Your task to perform on an android device: change the upload size in google photos Image 0: 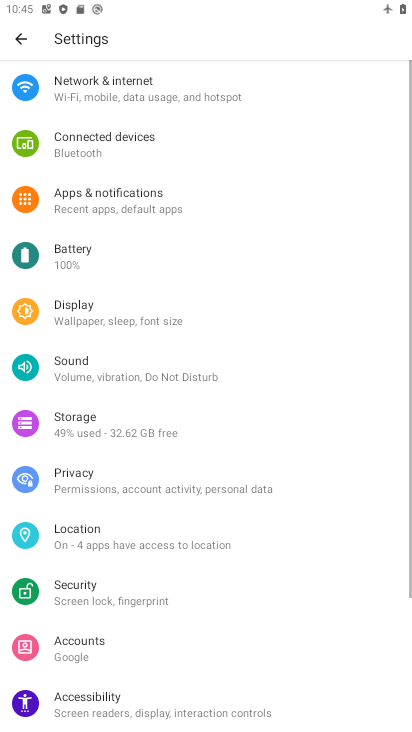
Step 0: click (18, 29)
Your task to perform on an android device: change the upload size in google photos Image 1: 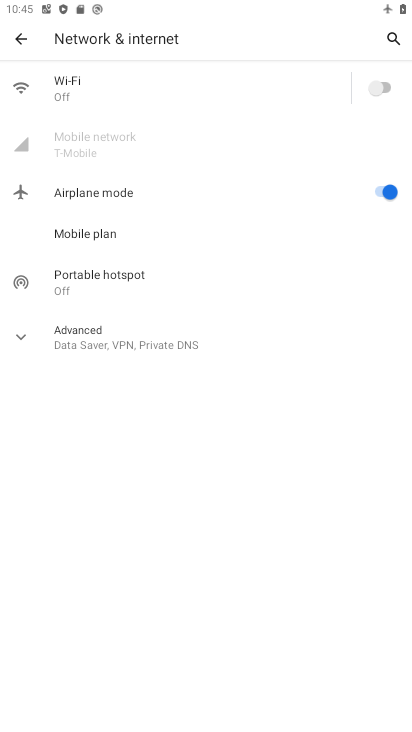
Step 1: click (29, 41)
Your task to perform on an android device: change the upload size in google photos Image 2: 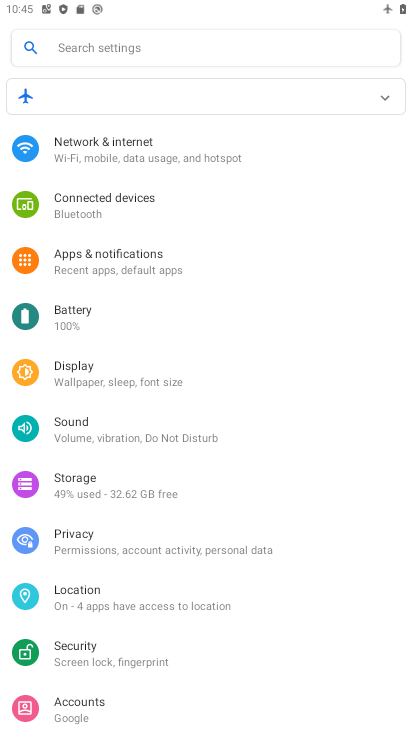
Step 2: press back button
Your task to perform on an android device: change the upload size in google photos Image 3: 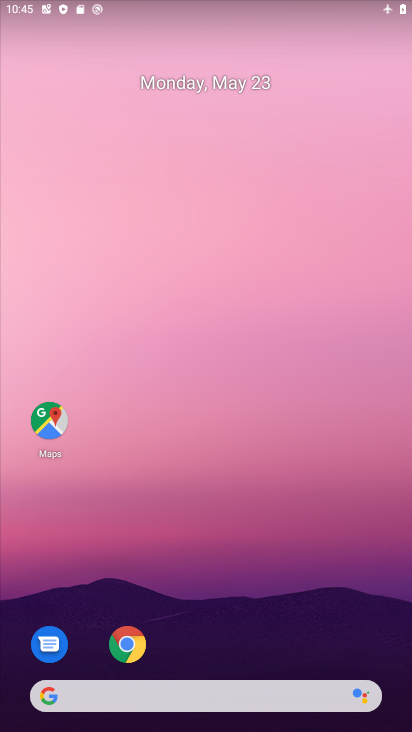
Step 3: drag from (205, 670) to (158, 163)
Your task to perform on an android device: change the upload size in google photos Image 4: 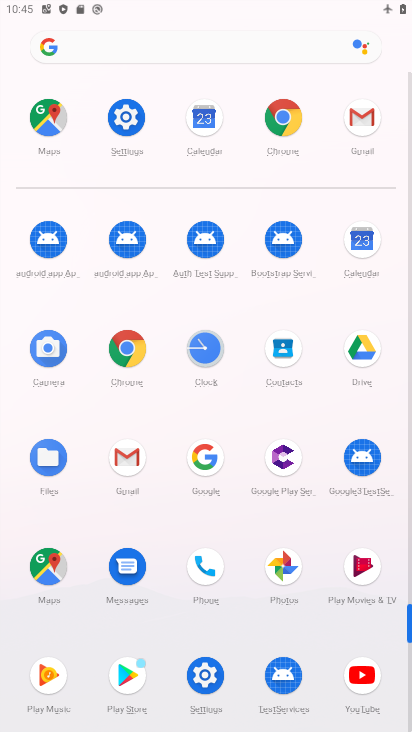
Step 4: click (206, 465)
Your task to perform on an android device: change the upload size in google photos Image 5: 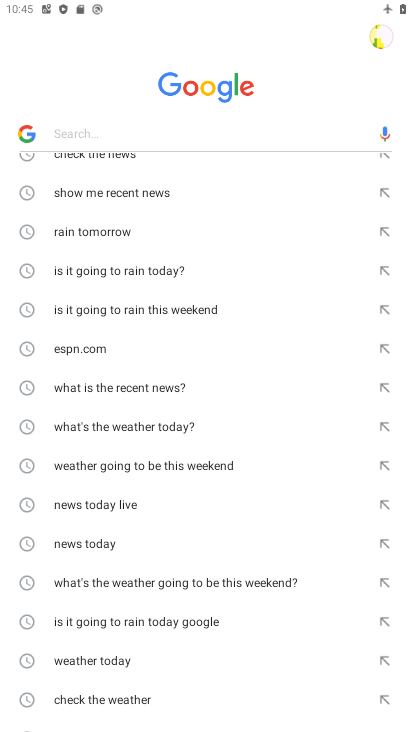
Step 5: press back button
Your task to perform on an android device: change the upload size in google photos Image 6: 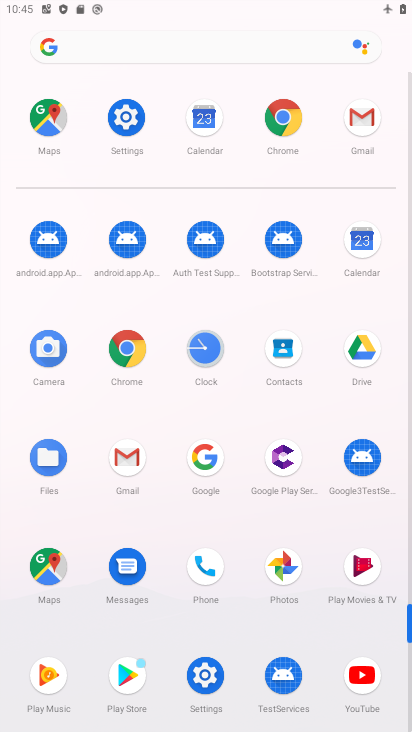
Step 6: click (285, 569)
Your task to perform on an android device: change the upload size in google photos Image 7: 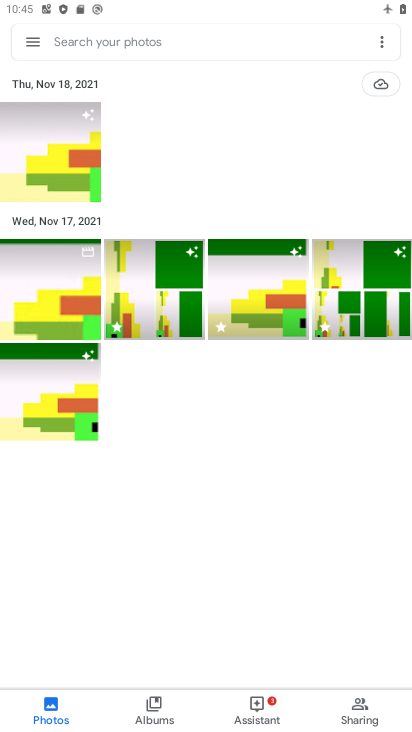
Step 7: click (25, 40)
Your task to perform on an android device: change the upload size in google photos Image 8: 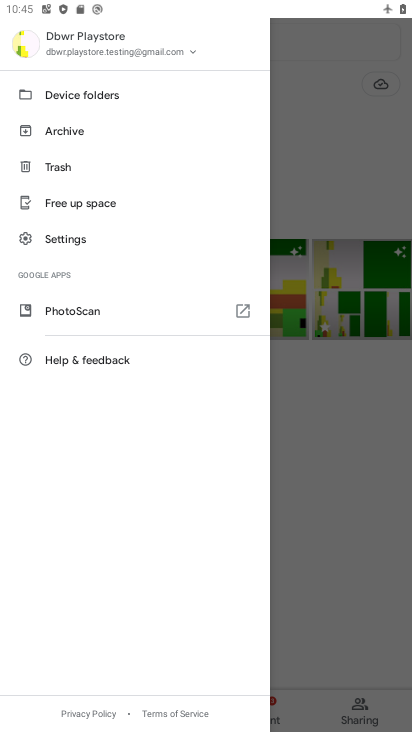
Step 8: click (69, 237)
Your task to perform on an android device: change the upload size in google photos Image 9: 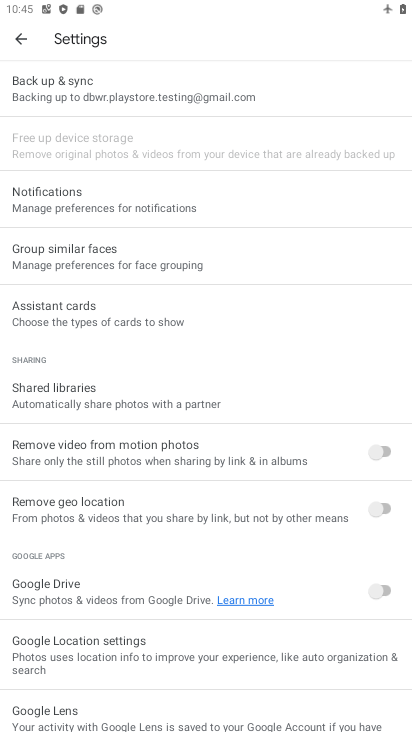
Step 9: click (62, 89)
Your task to perform on an android device: change the upload size in google photos Image 10: 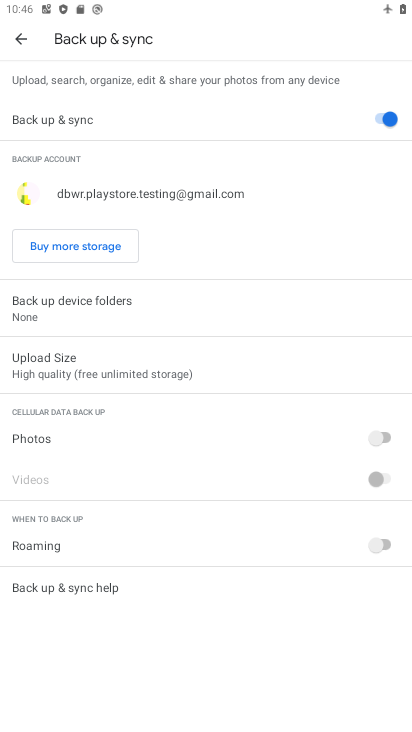
Step 10: click (54, 349)
Your task to perform on an android device: change the upload size in google photos Image 11: 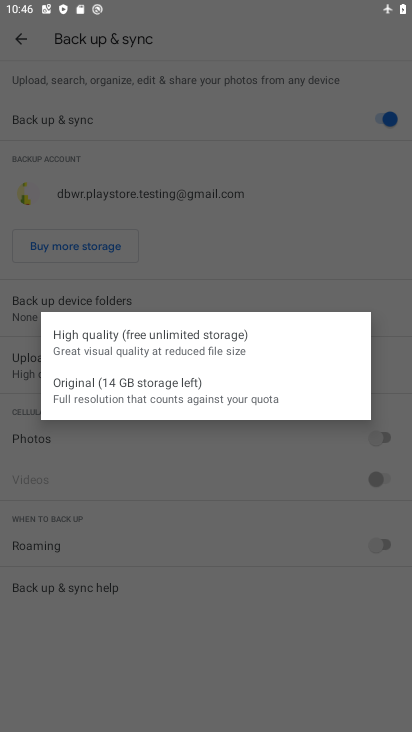
Step 11: click (91, 377)
Your task to perform on an android device: change the upload size in google photos Image 12: 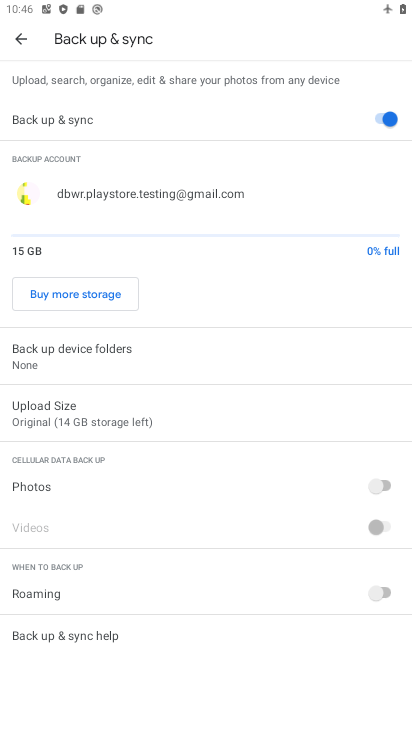
Step 12: task complete